Your task to perform on an android device: open a new tab in the chrome app Image 0: 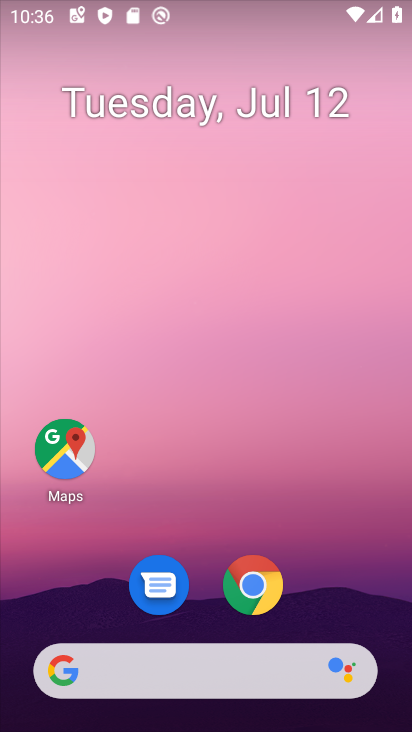
Step 0: drag from (251, 497) to (279, 32)
Your task to perform on an android device: open a new tab in the chrome app Image 1: 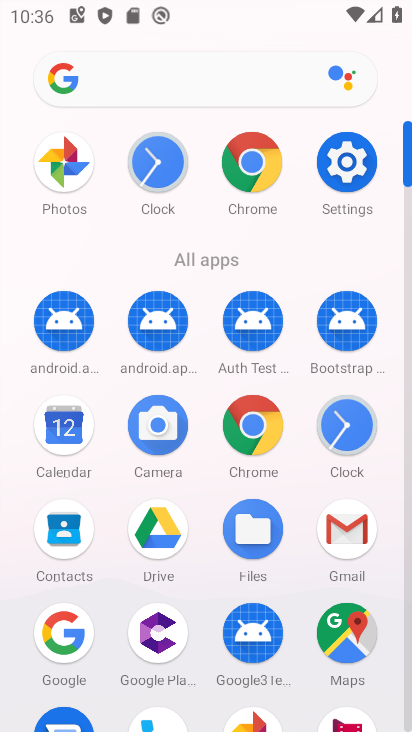
Step 1: click (258, 169)
Your task to perform on an android device: open a new tab in the chrome app Image 2: 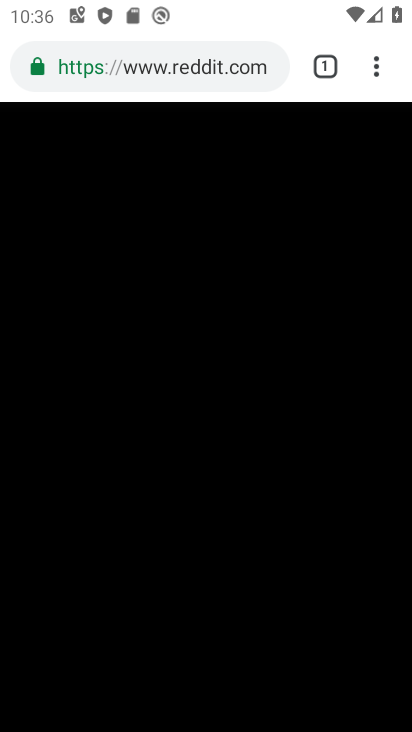
Step 2: click (375, 77)
Your task to perform on an android device: open a new tab in the chrome app Image 3: 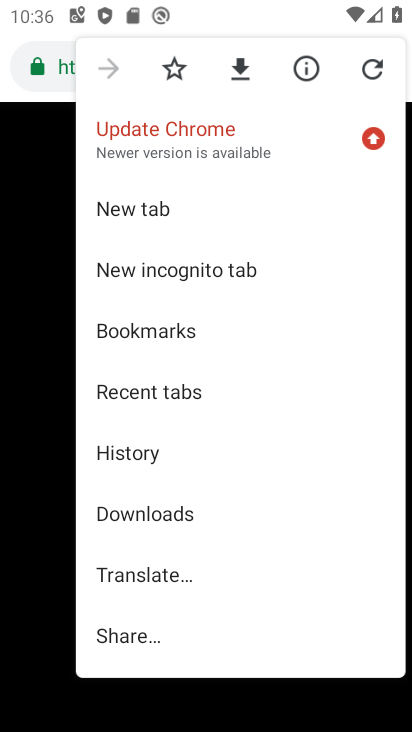
Step 3: click (228, 215)
Your task to perform on an android device: open a new tab in the chrome app Image 4: 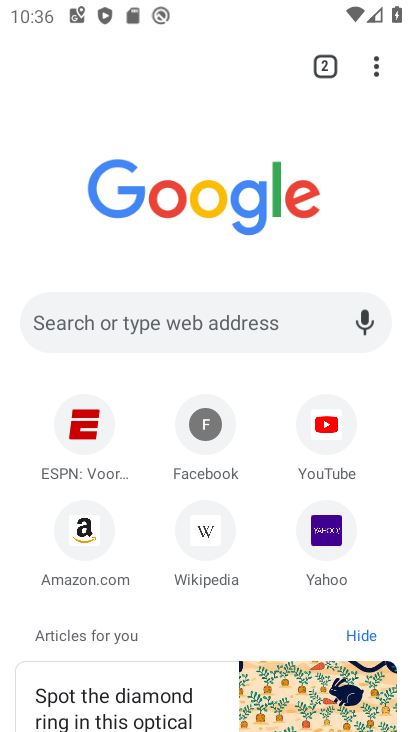
Step 4: task complete